Your task to perform on an android device: Search for Mexican restaurants on Maps Image 0: 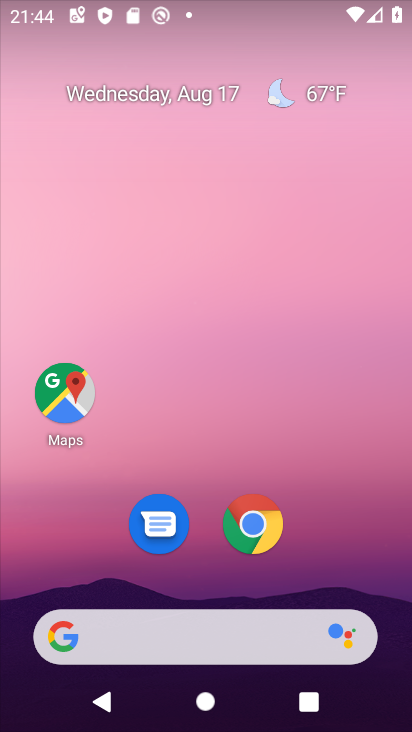
Step 0: click (63, 380)
Your task to perform on an android device: Search for Mexican restaurants on Maps Image 1: 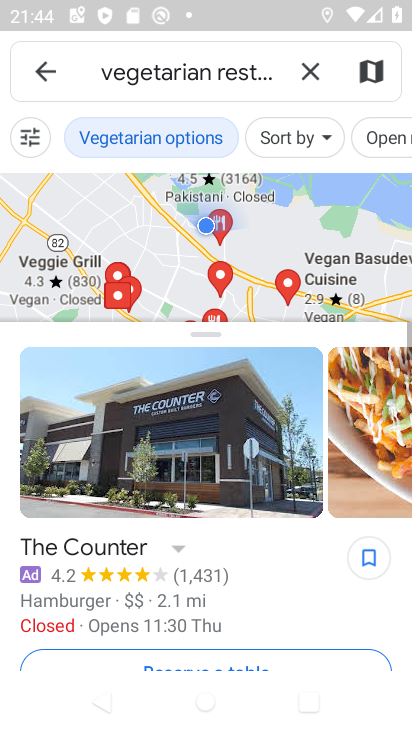
Step 1: click (46, 68)
Your task to perform on an android device: Search for Mexican restaurants on Maps Image 2: 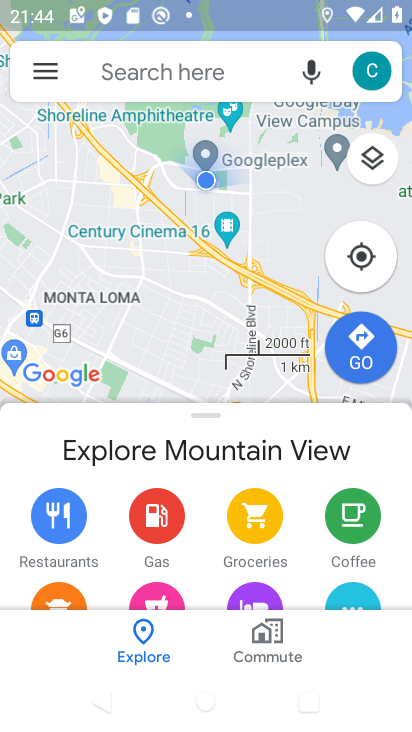
Step 2: click (153, 72)
Your task to perform on an android device: Search for Mexican restaurants on Maps Image 3: 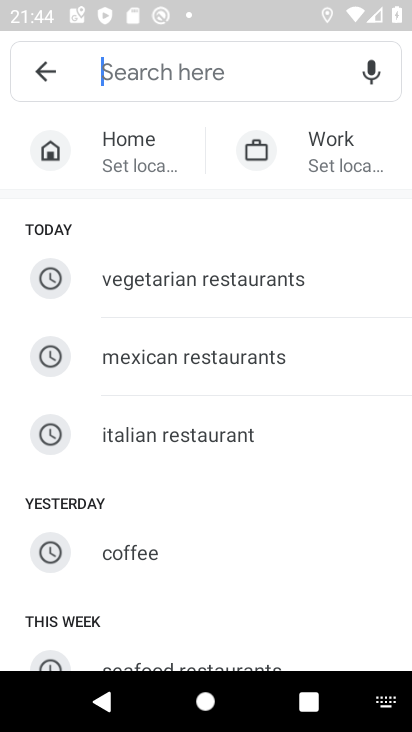
Step 3: click (215, 352)
Your task to perform on an android device: Search for Mexican restaurants on Maps Image 4: 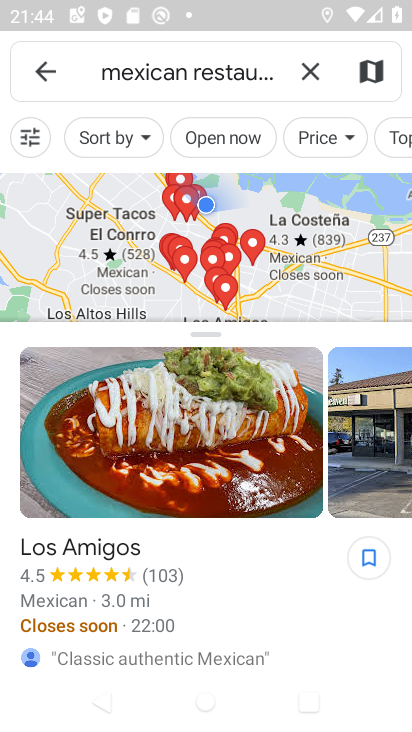
Step 4: task complete